Your task to perform on an android device: Do I have any events this weekend? Image 0: 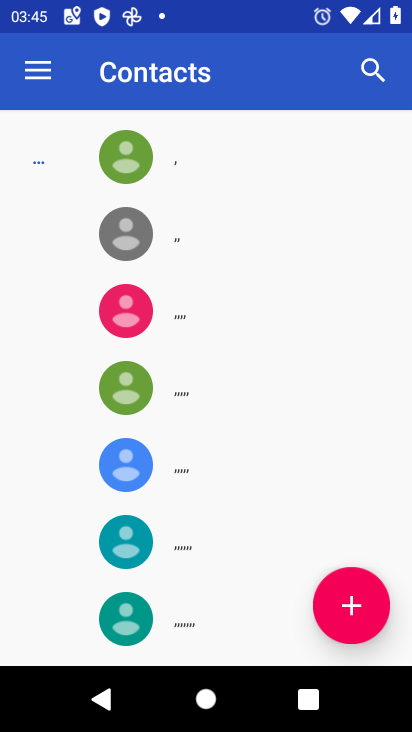
Step 0: press home button
Your task to perform on an android device: Do I have any events this weekend? Image 1: 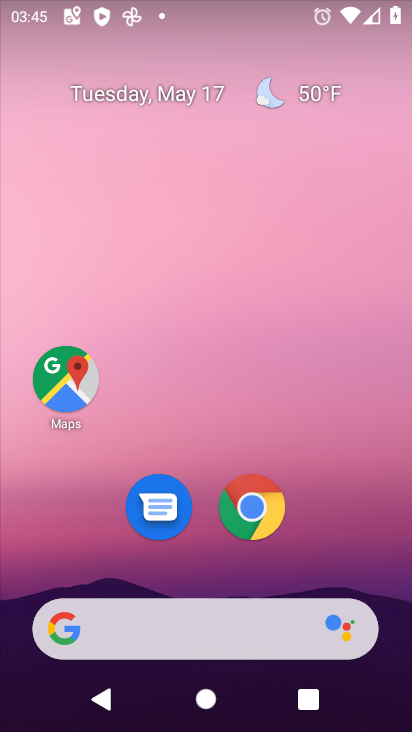
Step 1: drag from (335, 524) to (239, 28)
Your task to perform on an android device: Do I have any events this weekend? Image 2: 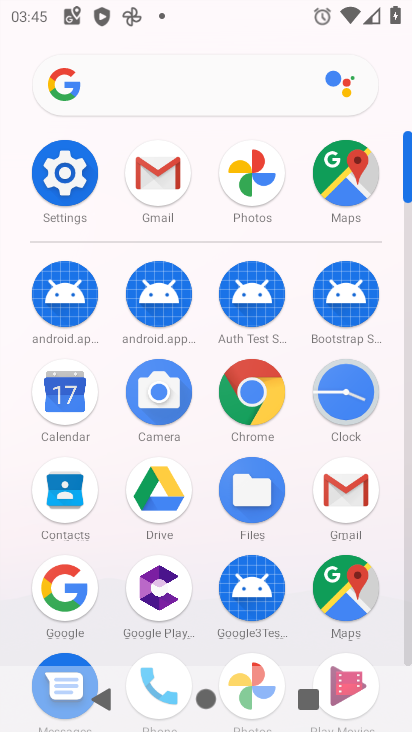
Step 2: click (55, 400)
Your task to perform on an android device: Do I have any events this weekend? Image 3: 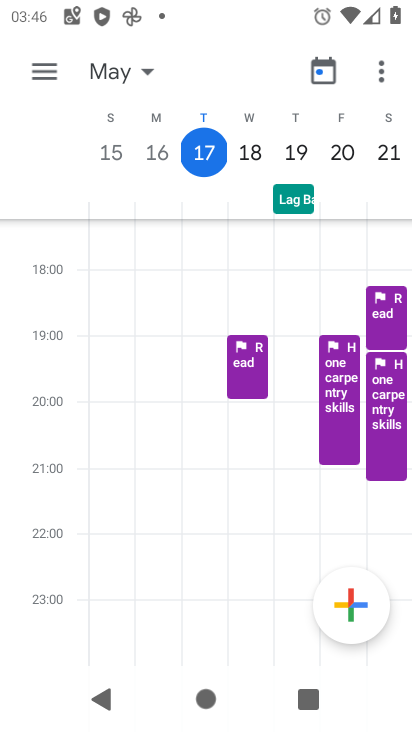
Step 3: task complete